Your task to perform on an android device: What is the news today? Image 0: 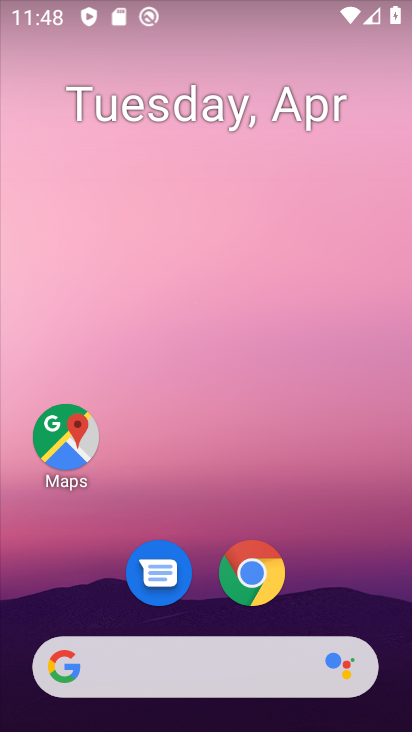
Step 0: drag from (356, 555) to (335, 197)
Your task to perform on an android device: What is the news today? Image 1: 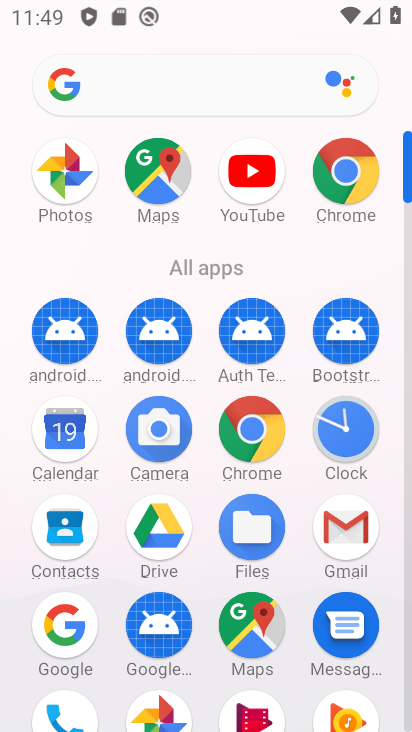
Step 1: click (263, 422)
Your task to perform on an android device: What is the news today? Image 2: 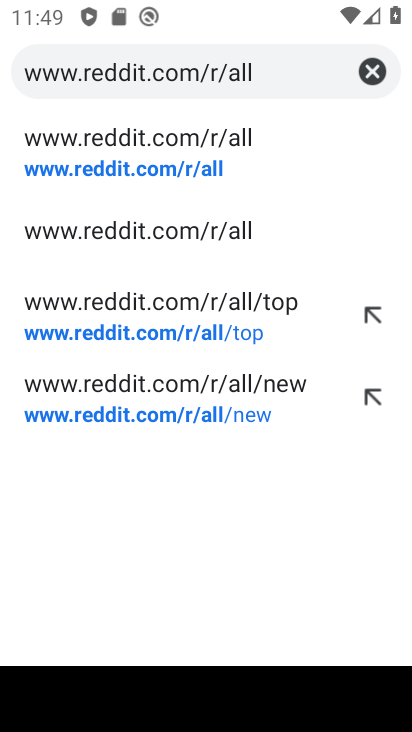
Step 2: click (375, 69)
Your task to perform on an android device: What is the news today? Image 3: 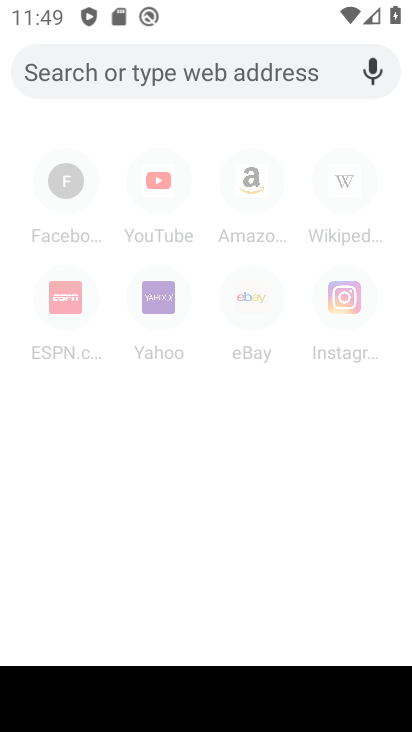
Step 3: click (269, 76)
Your task to perform on an android device: What is the news today? Image 4: 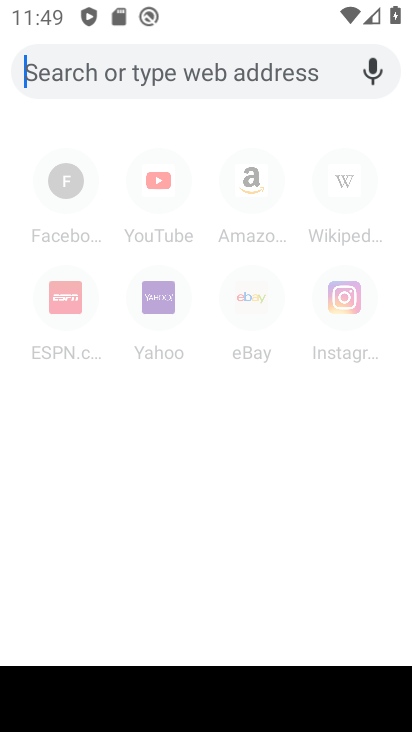
Step 4: type "What is the news today?"
Your task to perform on an android device: What is the news today? Image 5: 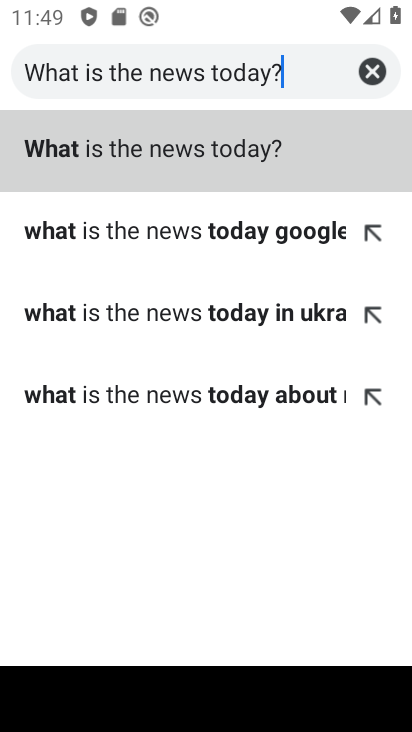
Step 5: click (168, 145)
Your task to perform on an android device: What is the news today? Image 6: 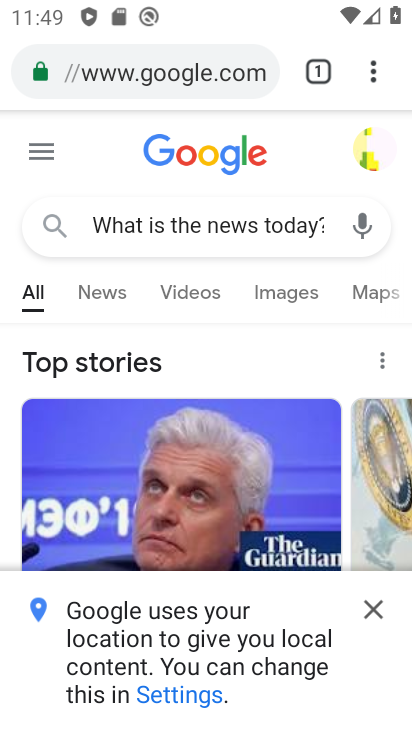
Step 6: task complete